Your task to perform on an android device: What is the news today? Image 0: 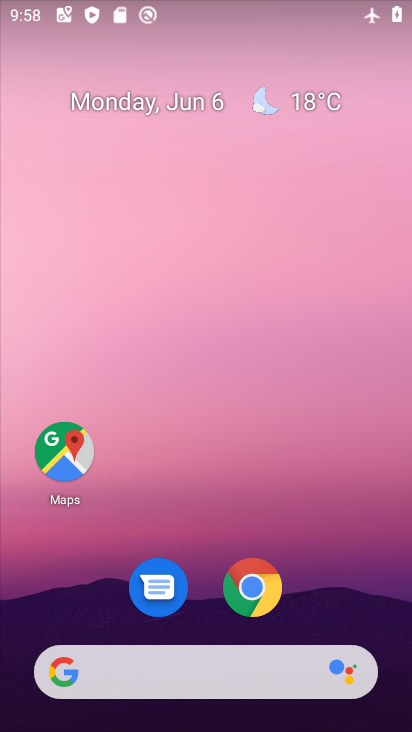
Step 0: drag from (348, 496) to (311, 117)
Your task to perform on an android device: What is the news today? Image 1: 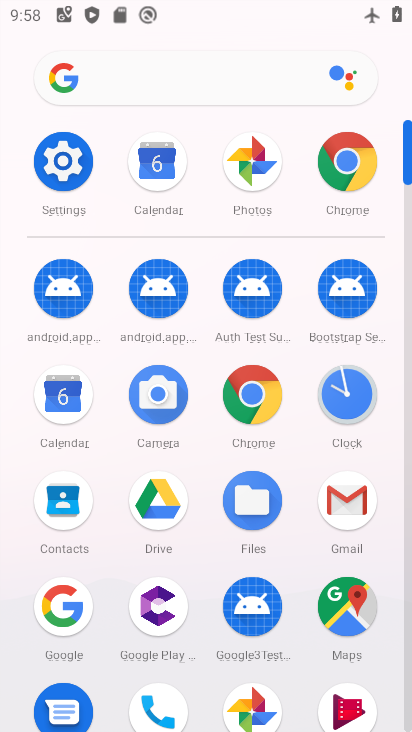
Step 1: click (254, 394)
Your task to perform on an android device: What is the news today? Image 2: 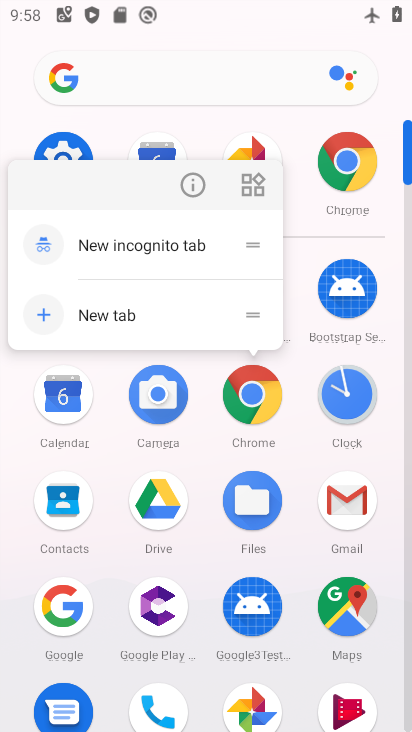
Step 2: click (254, 394)
Your task to perform on an android device: What is the news today? Image 3: 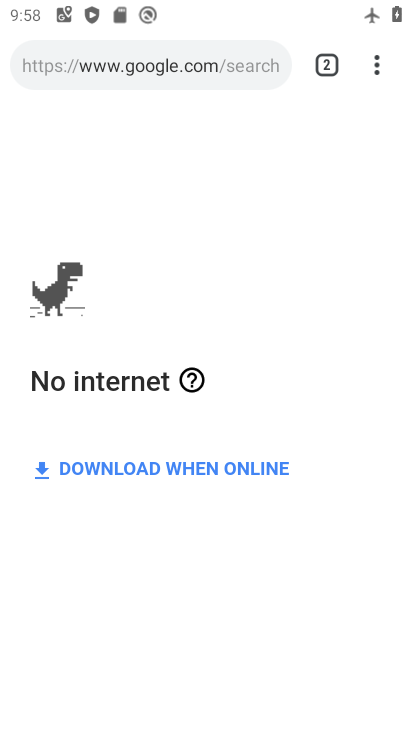
Step 3: click (143, 69)
Your task to perform on an android device: What is the news today? Image 4: 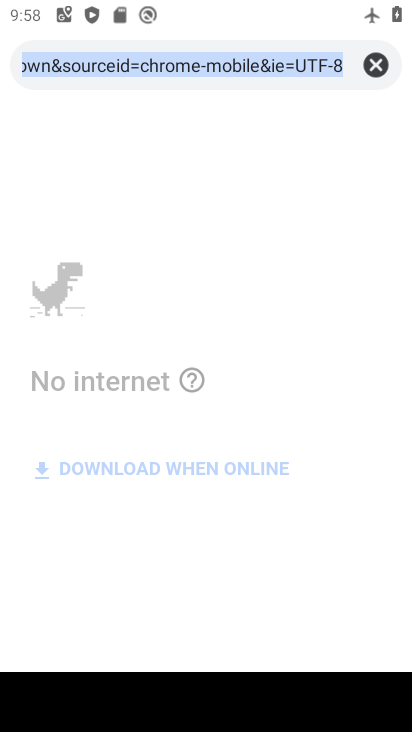
Step 4: type "news"
Your task to perform on an android device: What is the news today? Image 5: 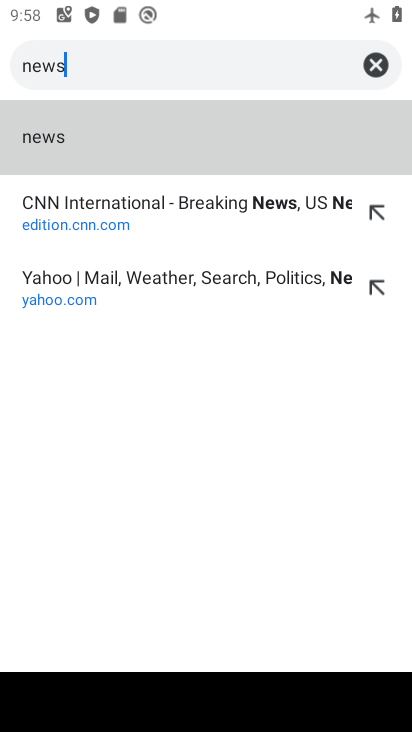
Step 5: click (58, 138)
Your task to perform on an android device: What is the news today? Image 6: 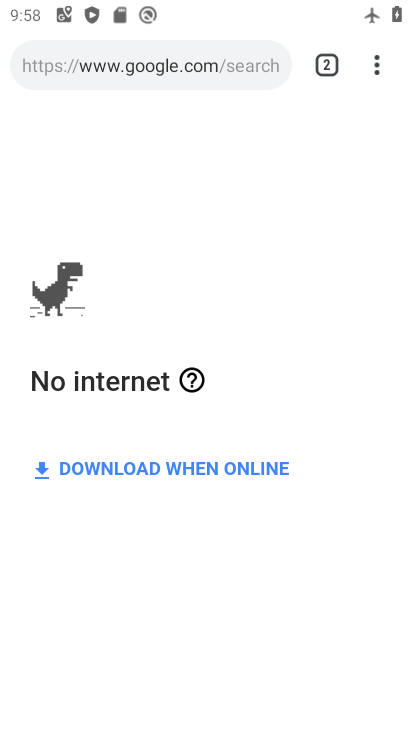
Step 6: task complete